Your task to perform on an android device: change timer sound Image 0: 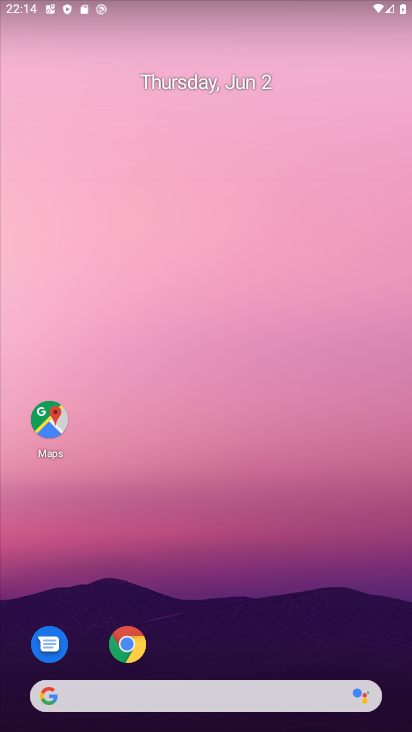
Step 0: drag from (184, 650) to (218, 135)
Your task to perform on an android device: change timer sound Image 1: 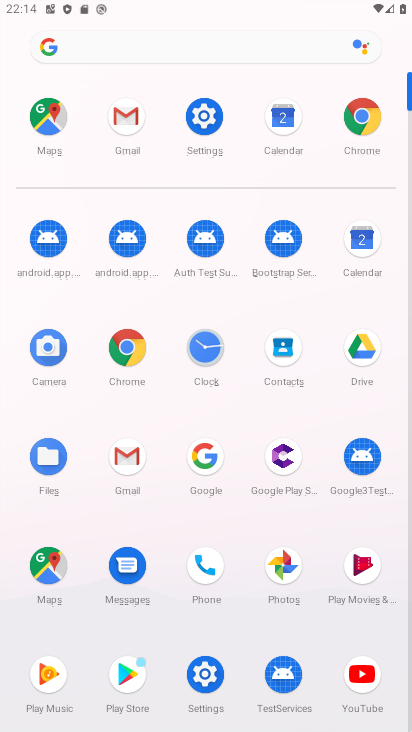
Step 1: click (206, 350)
Your task to perform on an android device: change timer sound Image 2: 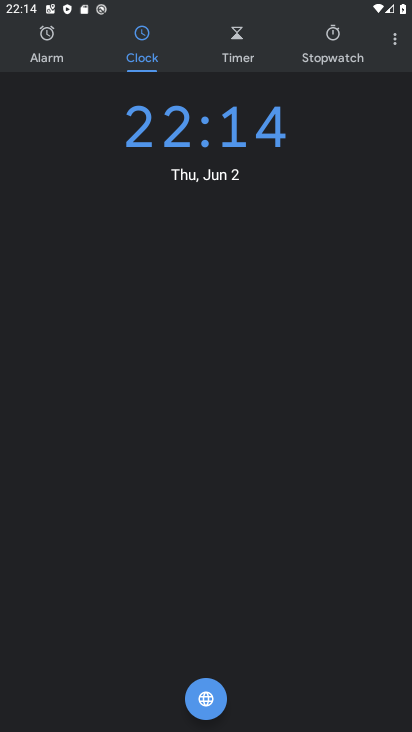
Step 2: click (400, 48)
Your task to perform on an android device: change timer sound Image 3: 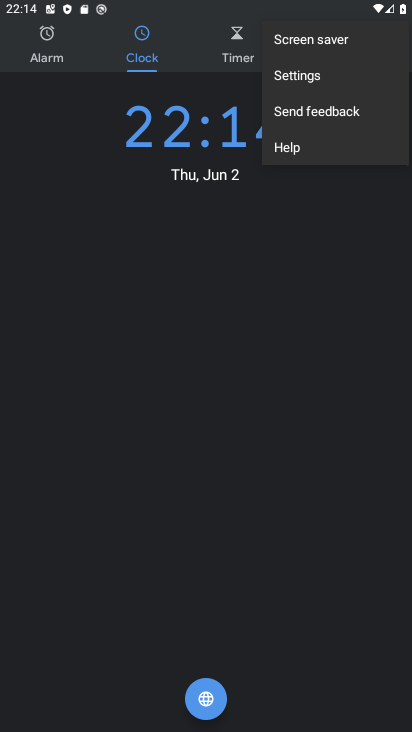
Step 3: click (306, 80)
Your task to perform on an android device: change timer sound Image 4: 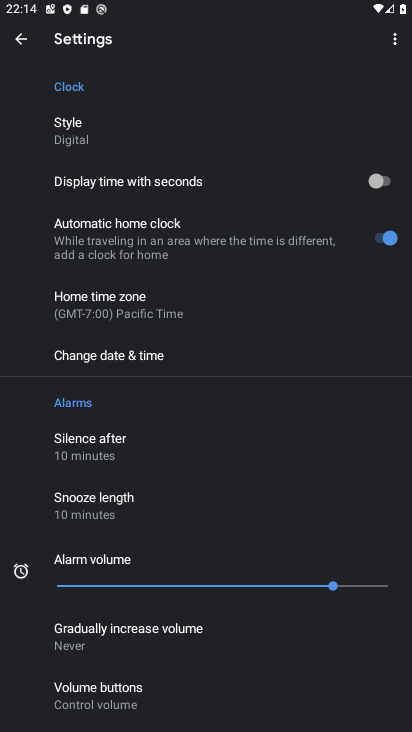
Step 4: drag from (221, 611) to (204, 234)
Your task to perform on an android device: change timer sound Image 5: 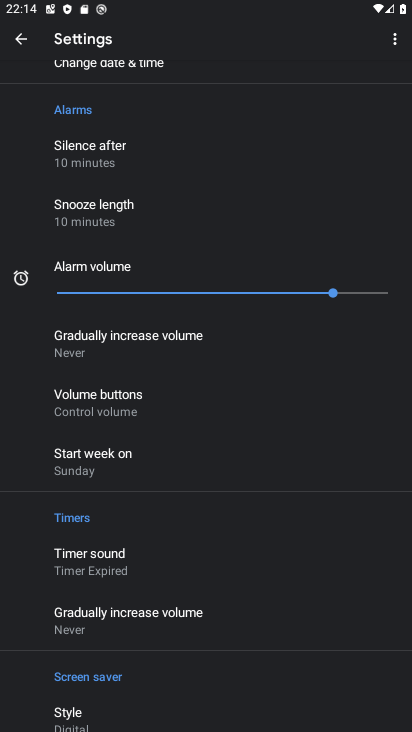
Step 5: click (101, 553)
Your task to perform on an android device: change timer sound Image 6: 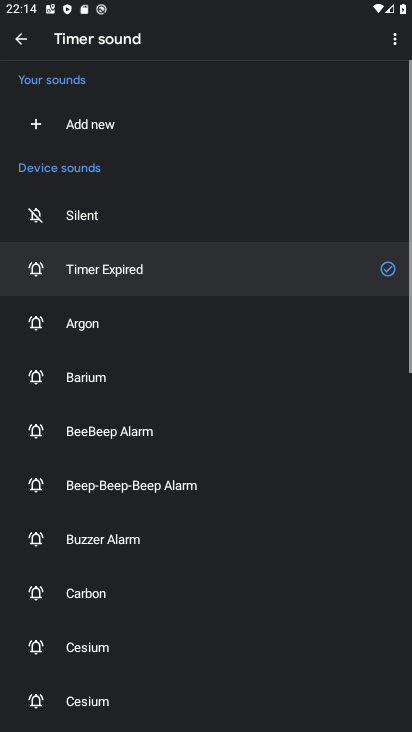
Step 6: click (101, 548)
Your task to perform on an android device: change timer sound Image 7: 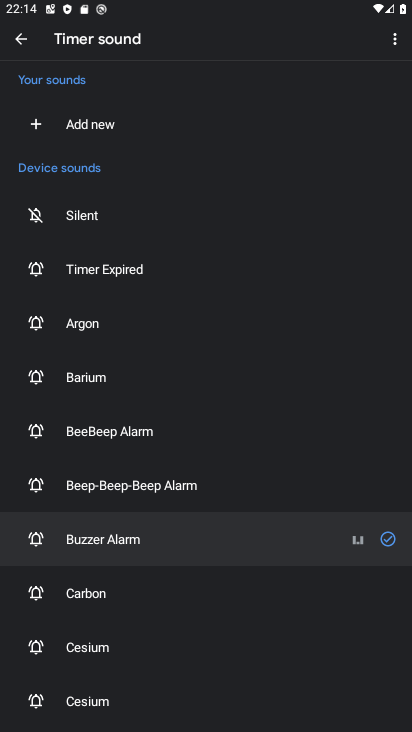
Step 7: task complete